Your task to perform on an android device: Search for seafood restaurants on Google Maps Image 0: 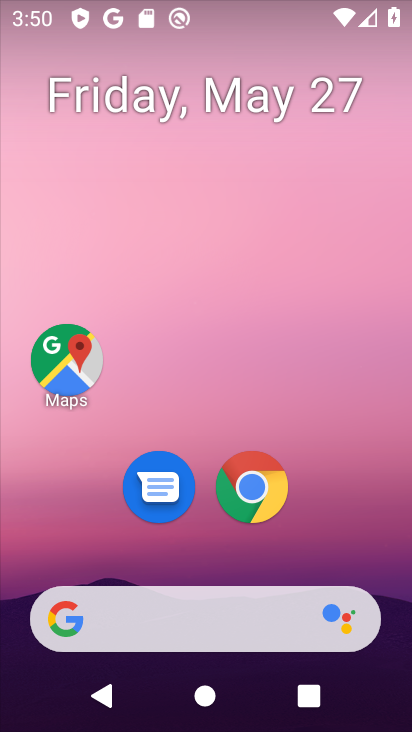
Step 0: drag from (258, 316) to (190, 106)
Your task to perform on an android device: Search for seafood restaurants on Google Maps Image 1: 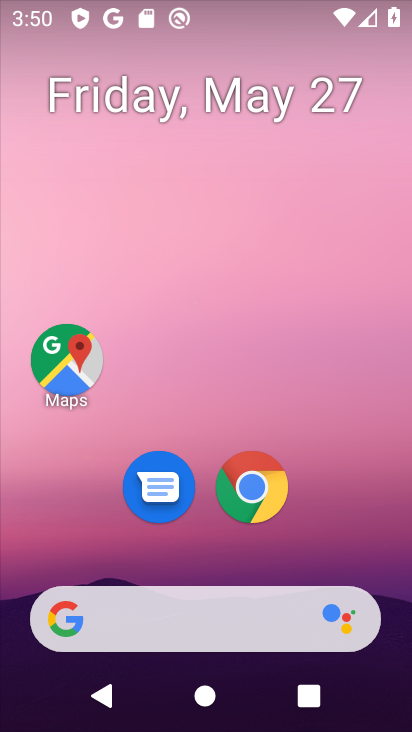
Step 1: drag from (316, 480) to (287, 36)
Your task to perform on an android device: Search for seafood restaurants on Google Maps Image 2: 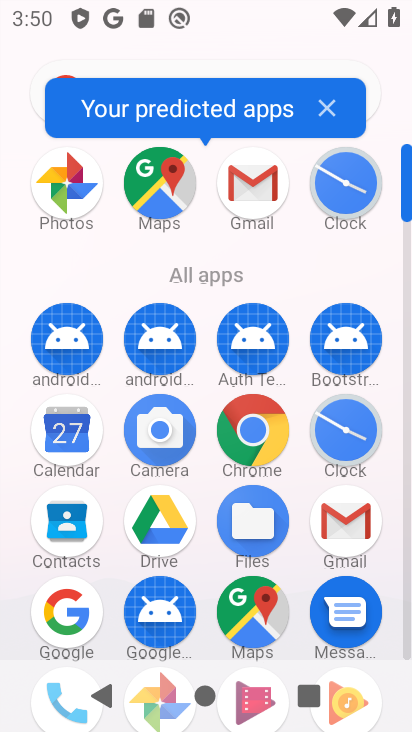
Step 2: click (163, 179)
Your task to perform on an android device: Search for seafood restaurants on Google Maps Image 3: 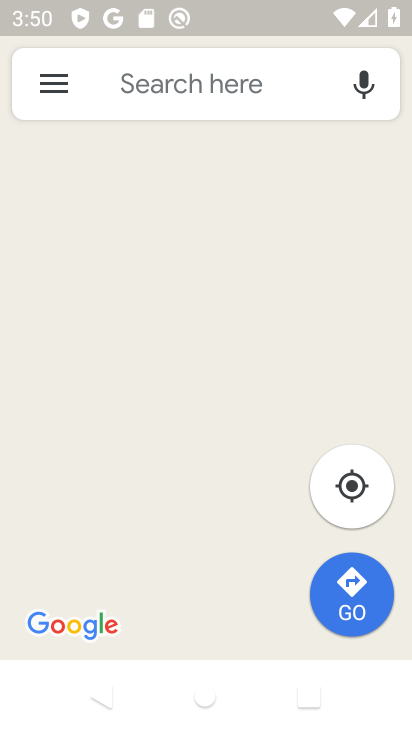
Step 3: click (170, 62)
Your task to perform on an android device: Search for seafood restaurants on Google Maps Image 4: 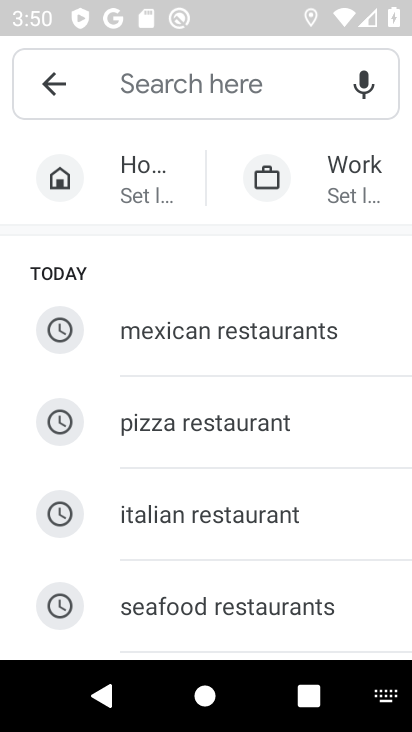
Step 4: click (268, 603)
Your task to perform on an android device: Search for seafood restaurants on Google Maps Image 5: 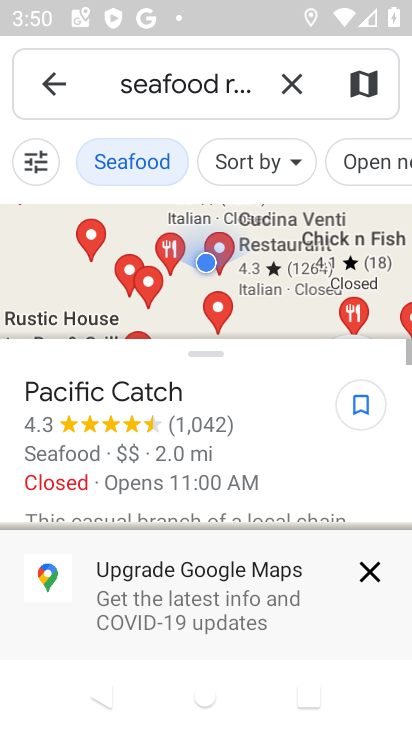
Step 5: task complete